Your task to perform on an android device: create a new album in the google photos Image 0: 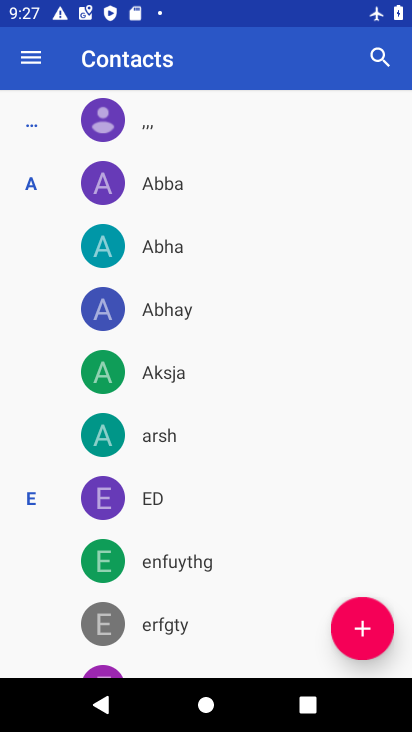
Step 0: press home button
Your task to perform on an android device: create a new album in the google photos Image 1: 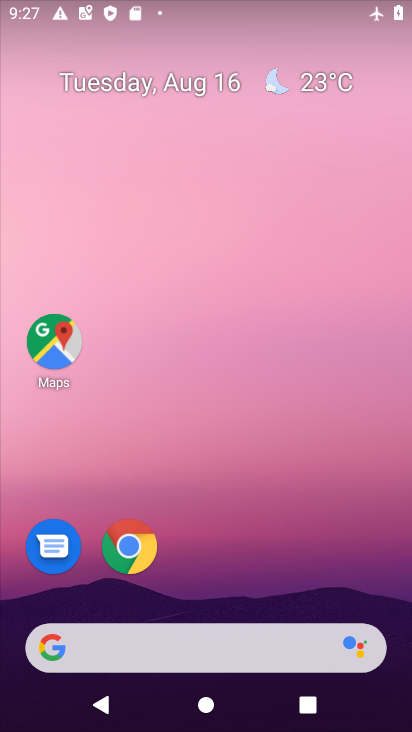
Step 1: drag from (291, 453) to (358, 0)
Your task to perform on an android device: create a new album in the google photos Image 2: 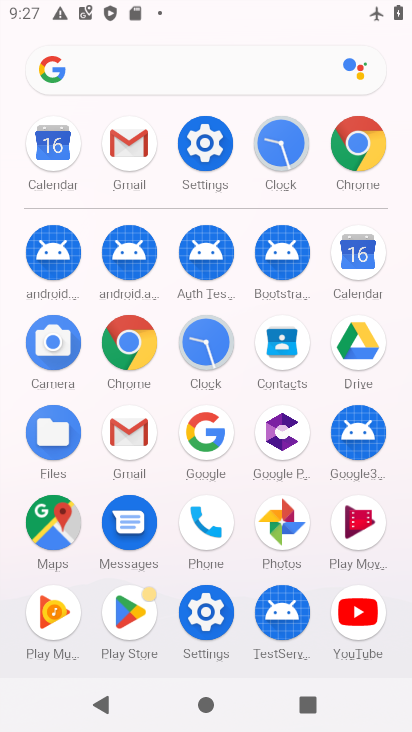
Step 2: click (278, 519)
Your task to perform on an android device: create a new album in the google photos Image 3: 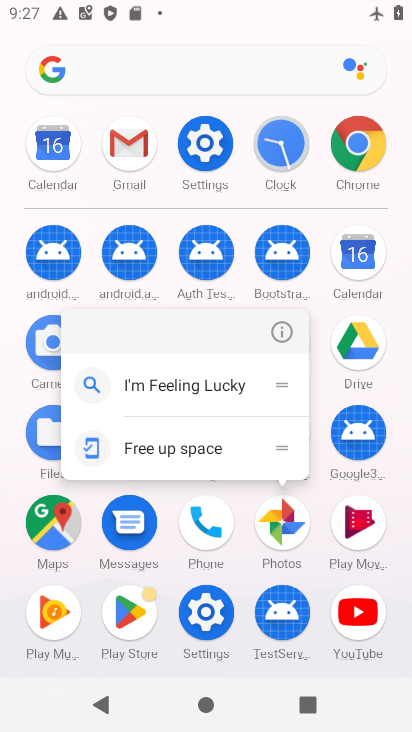
Step 3: click (280, 518)
Your task to perform on an android device: create a new album in the google photos Image 4: 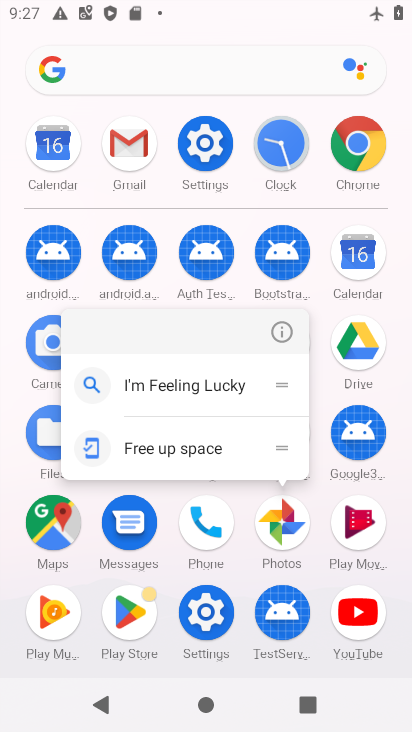
Step 4: click (280, 522)
Your task to perform on an android device: create a new album in the google photos Image 5: 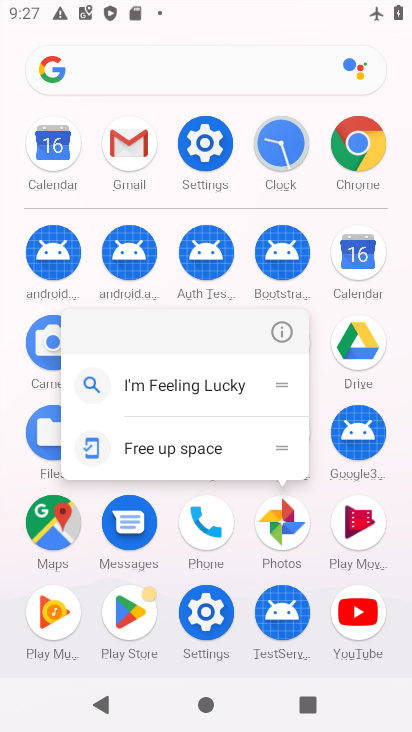
Step 5: click (295, 532)
Your task to perform on an android device: create a new album in the google photos Image 6: 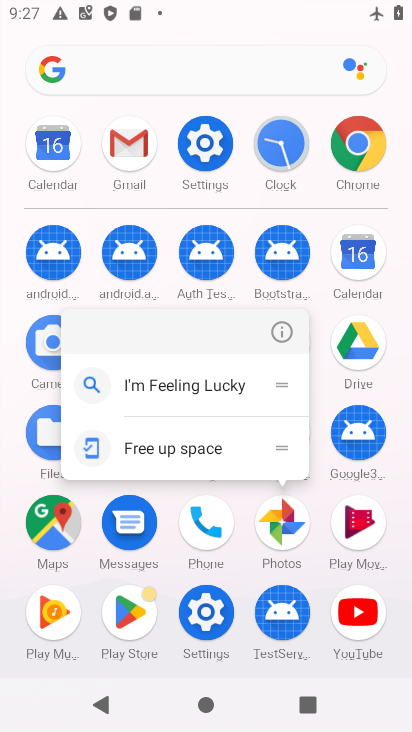
Step 6: click (284, 517)
Your task to perform on an android device: create a new album in the google photos Image 7: 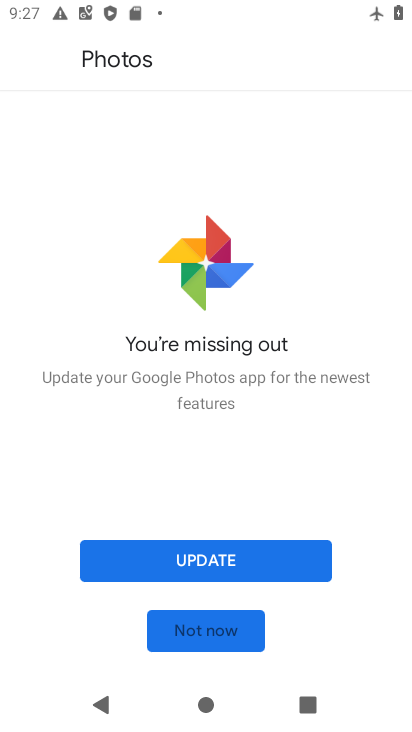
Step 7: click (246, 627)
Your task to perform on an android device: create a new album in the google photos Image 8: 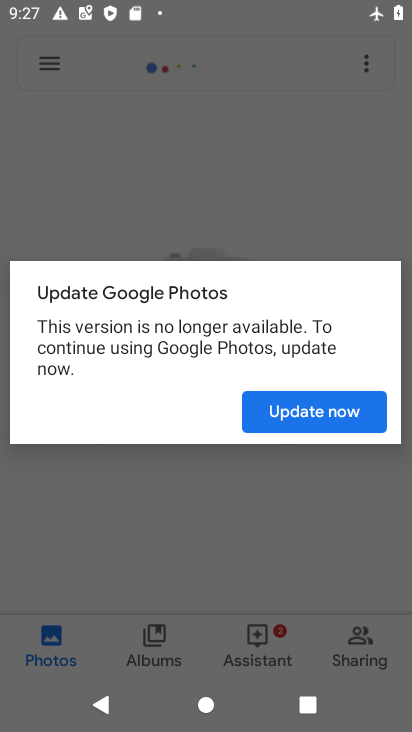
Step 8: click (359, 423)
Your task to perform on an android device: create a new album in the google photos Image 9: 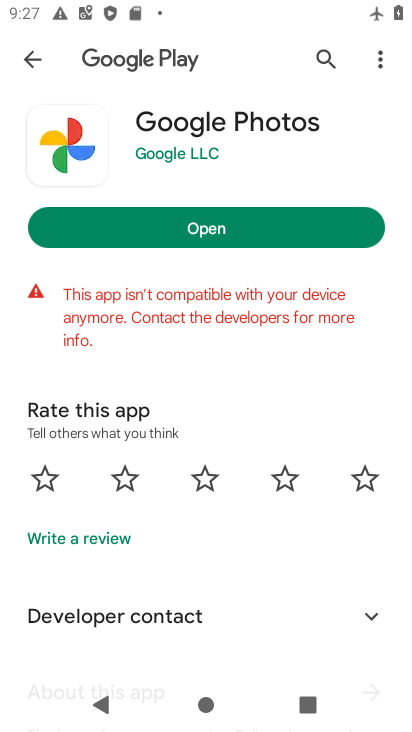
Step 9: click (294, 219)
Your task to perform on an android device: create a new album in the google photos Image 10: 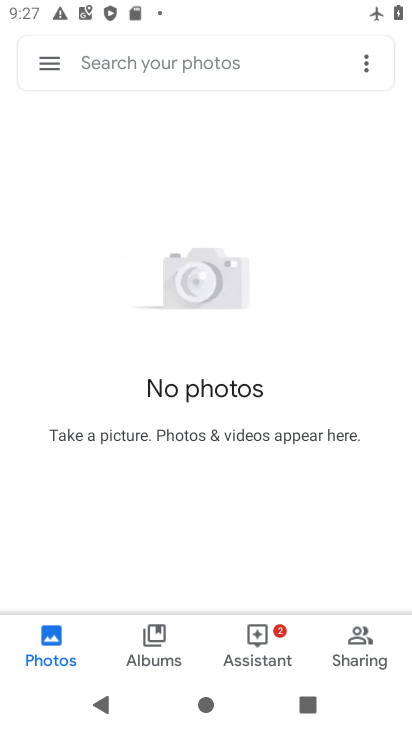
Step 10: click (147, 640)
Your task to perform on an android device: create a new album in the google photos Image 11: 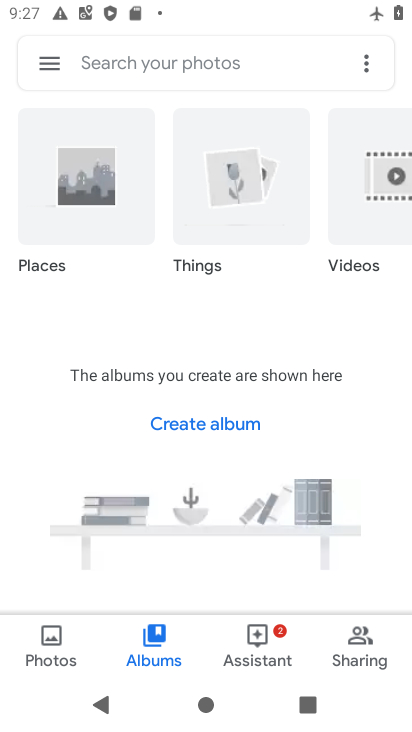
Step 11: click (241, 427)
Your task to perform on an android device: create a new album in the google photos Image 12: 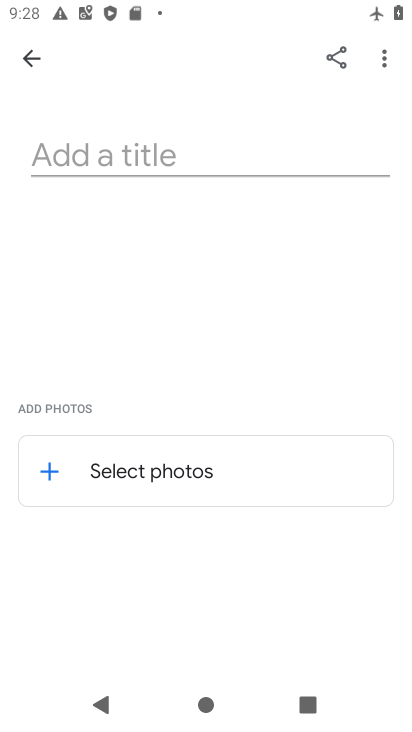
Step 12: click (258, 158)
Your task to perform on an android device: create a new album in the google photos Image 13: 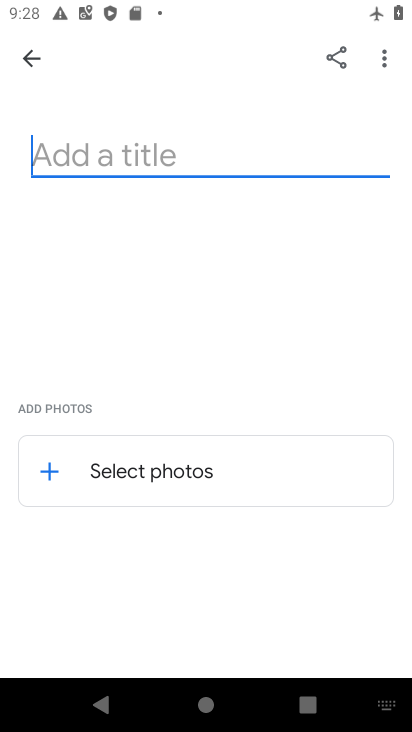
Step 13: type "Indraprastha"
Your task to perform on an android device: create a new album in the google photos Image 14: 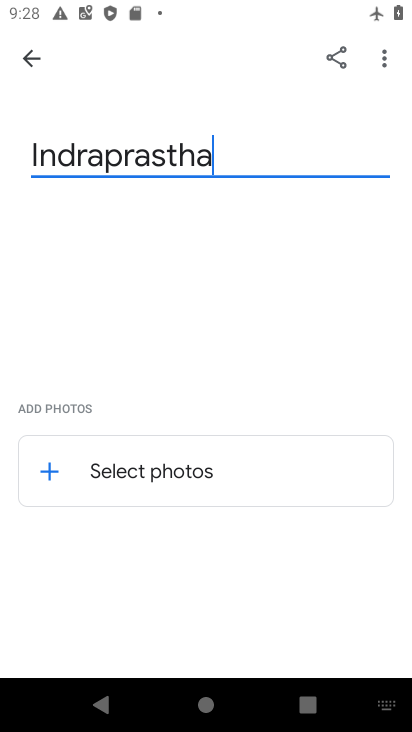
Step 14: click (50, 461)
Your task to perform on an android device: create a new album in the google photos Image 15: 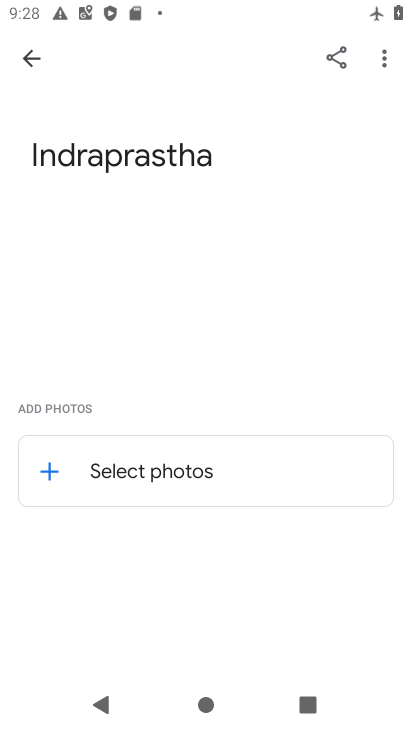
Step 15: click (46, 467)
Your task to perform on an android device: create a new album in the google photos Image 16: 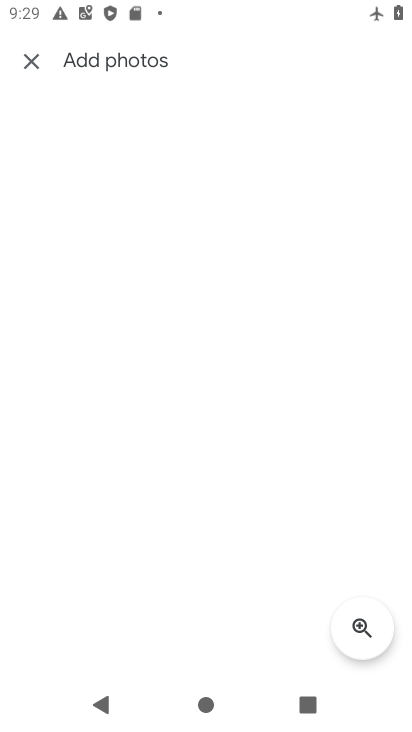
Step 16: task complete